Your task to perform on an android device: add a contact Image 0: 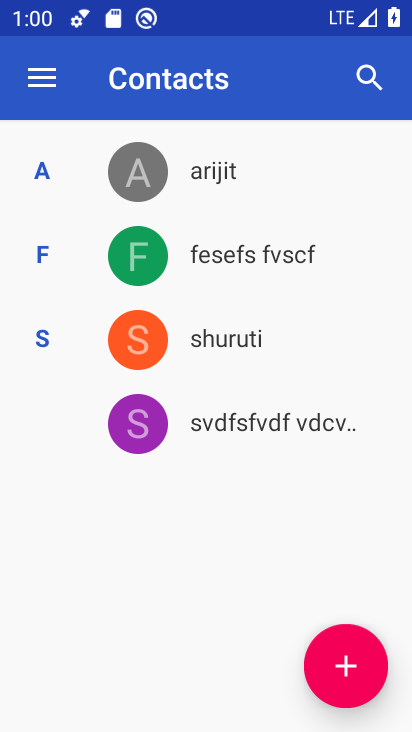
Step 0: press home button
Your task to perform on an android device: add a contact Image 1: 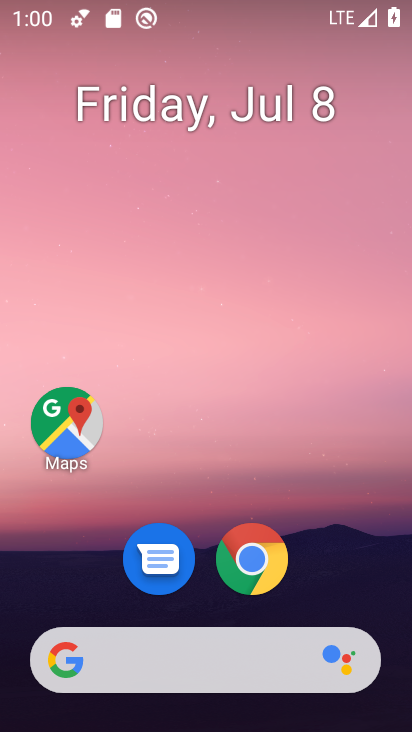
Step 1: drag from (209, 585) to (182, 21)
Your task to perform on an android device: add a contact Image 2: 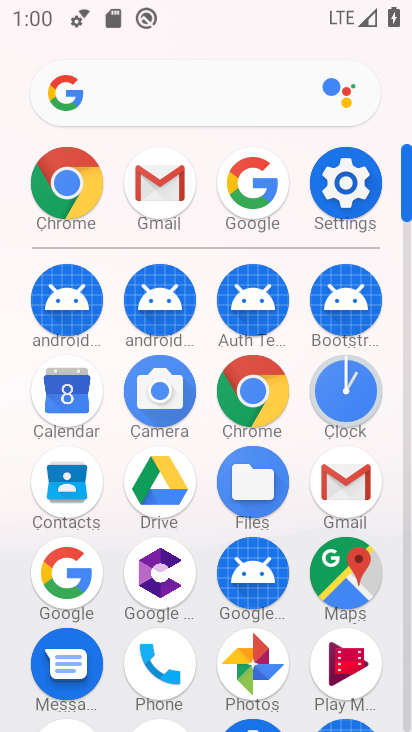
Step 2: click (163, 672)
Your task to perform on an android device: add a contact Image 3: 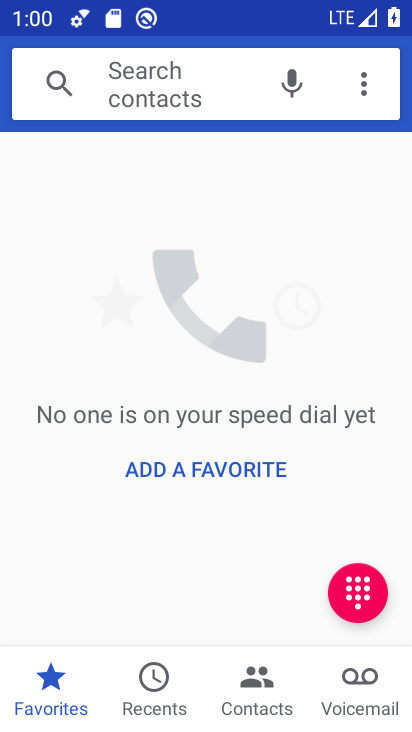
Step 3: click (241, 701)
Your task to perform on an android device: add a contact Image 4: 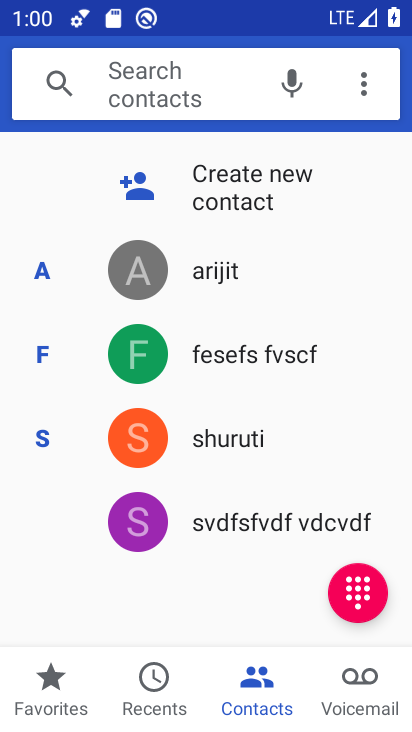
Step 4: click (367, 599)
Your task to perform on an android device: add a contact Image 5: 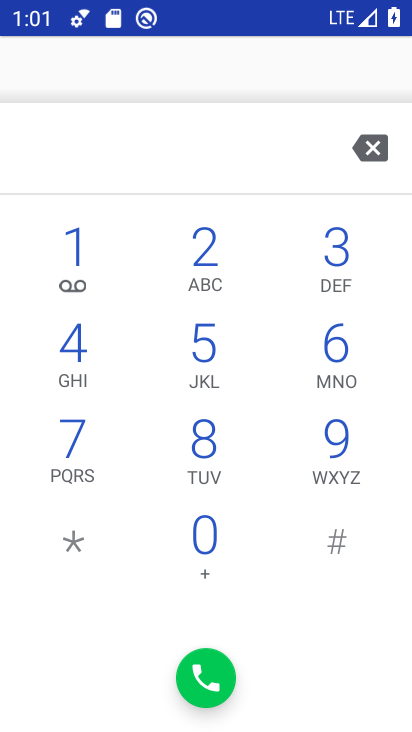
Step 5: click (199, 472)
Your task to perform on an android device: add a contact Image 6: 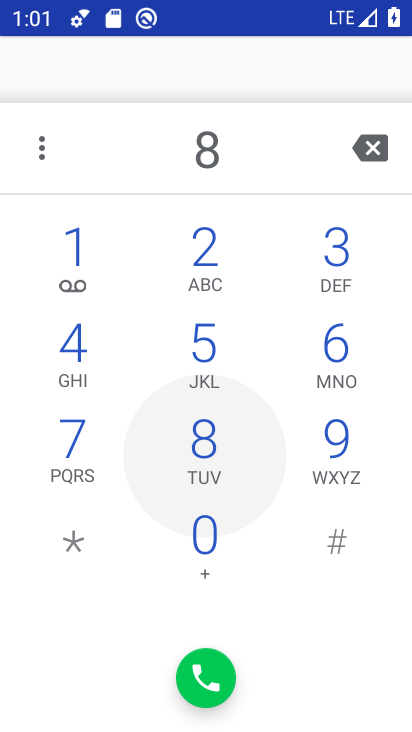
Step 6: click (205, 513)
Your task to perform on an android device: add a contact Image 7: 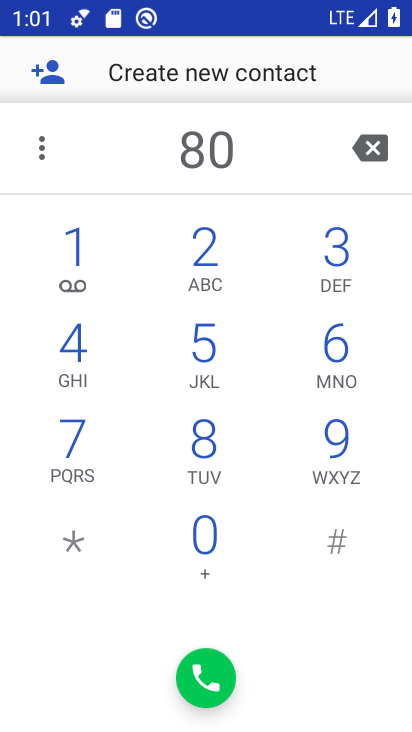
Step 7: click (154, 87)
Your task to perform on an android device: add a contact Image 8: 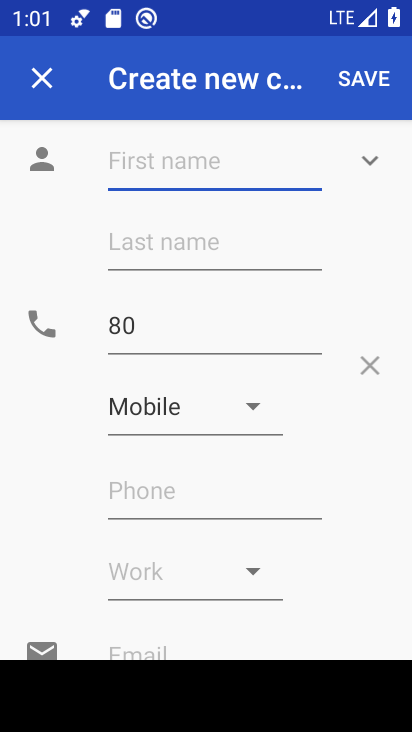
Step 8: click (379, 63)
Your task to perform on an android device: add a contact Image 9: 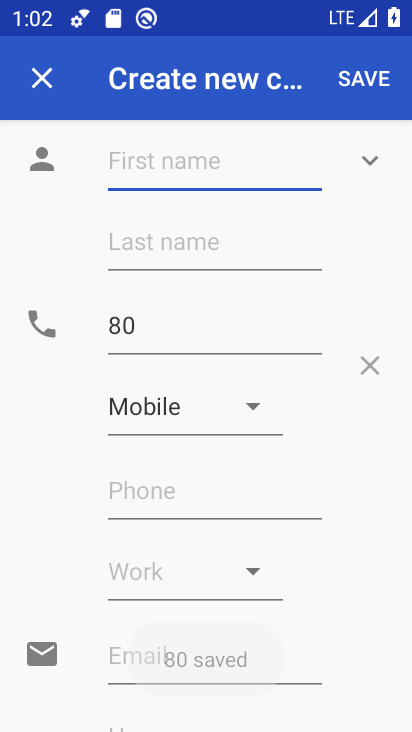
Step 9: task complete